Your task to perform on an android device: Empty the shopping cart on costco. Add usb-a to usb-b to the cart on costco, then select checkout. Image 0: 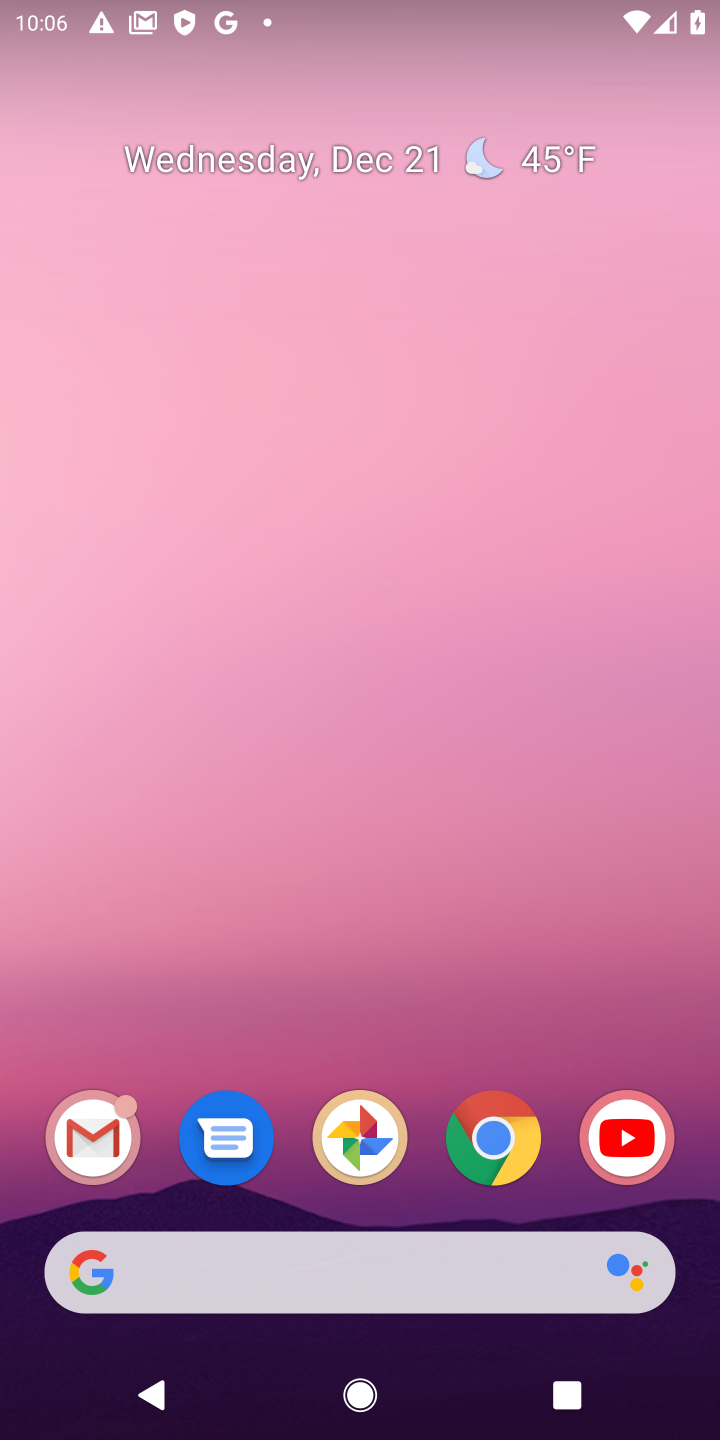
Step 0: click (489, 1150)
Your task to perform on an android device: Empty the shopping cart on costco. Add usb-a to usb-b to the cart on costco, then select checkout. Image 1: 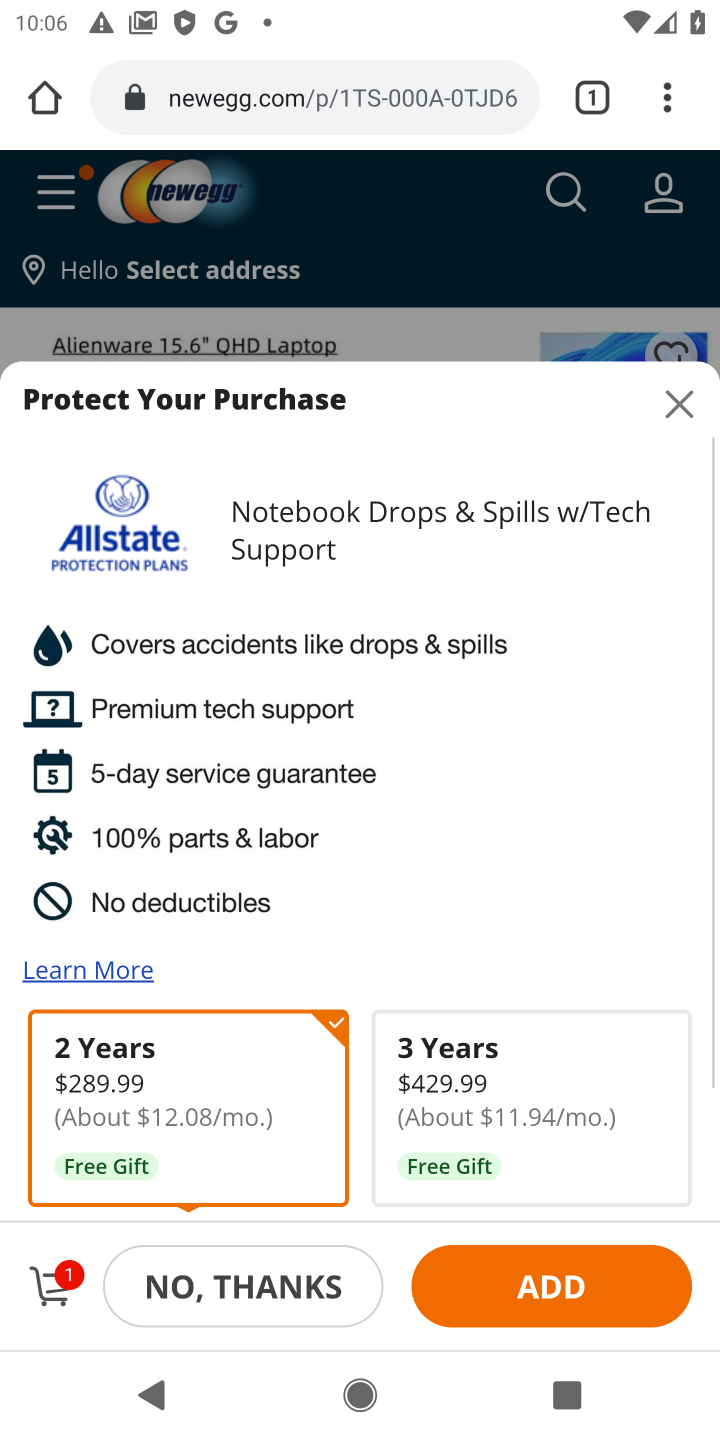
Step 1: click (310, 108)
Your task to perform on an android device: Empty the shopping cart on costco. Add usb-a to usb-b to the cart on costco, then select checkout. Image 2: 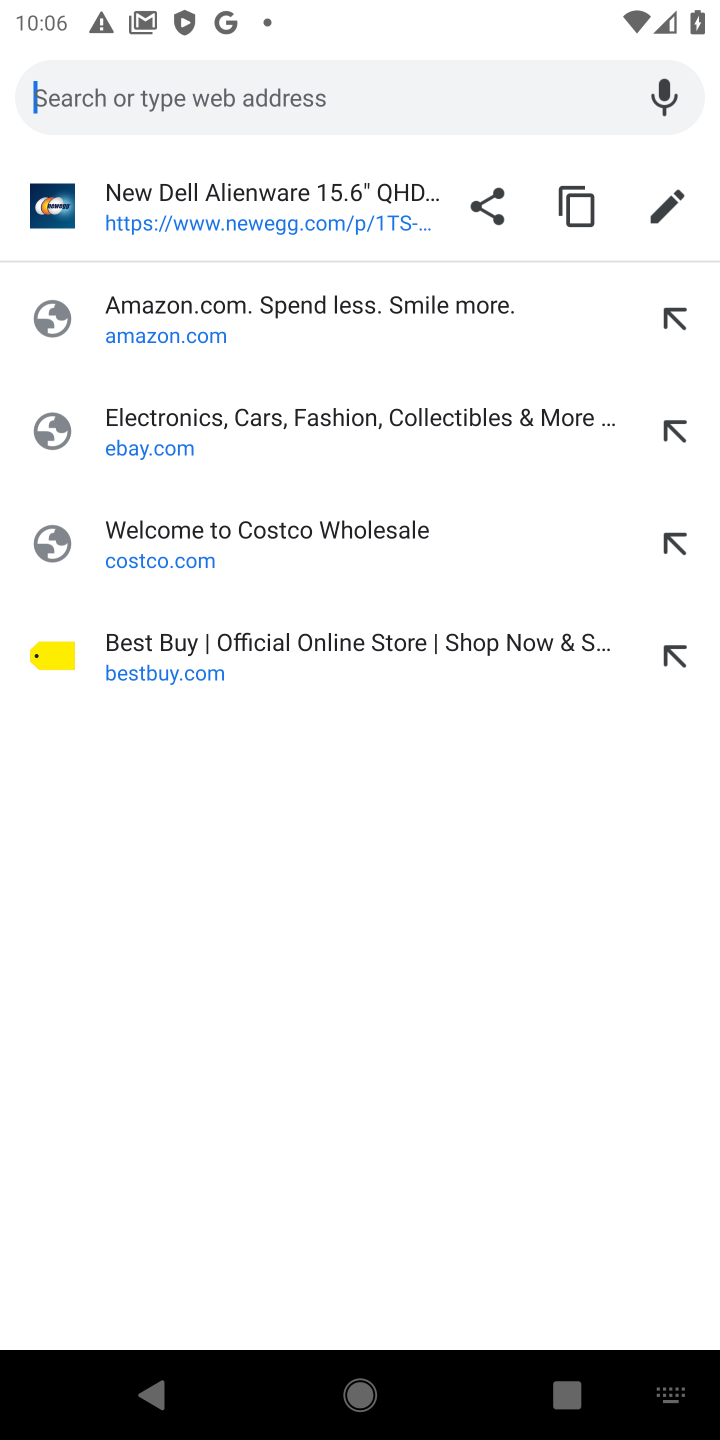
Step 2: click (140, 566)
Your task to perform on an android device: Empty the shopping cart on costco. Add usb-a to usb-b to the cart on costco, then select checkout. Image 3: 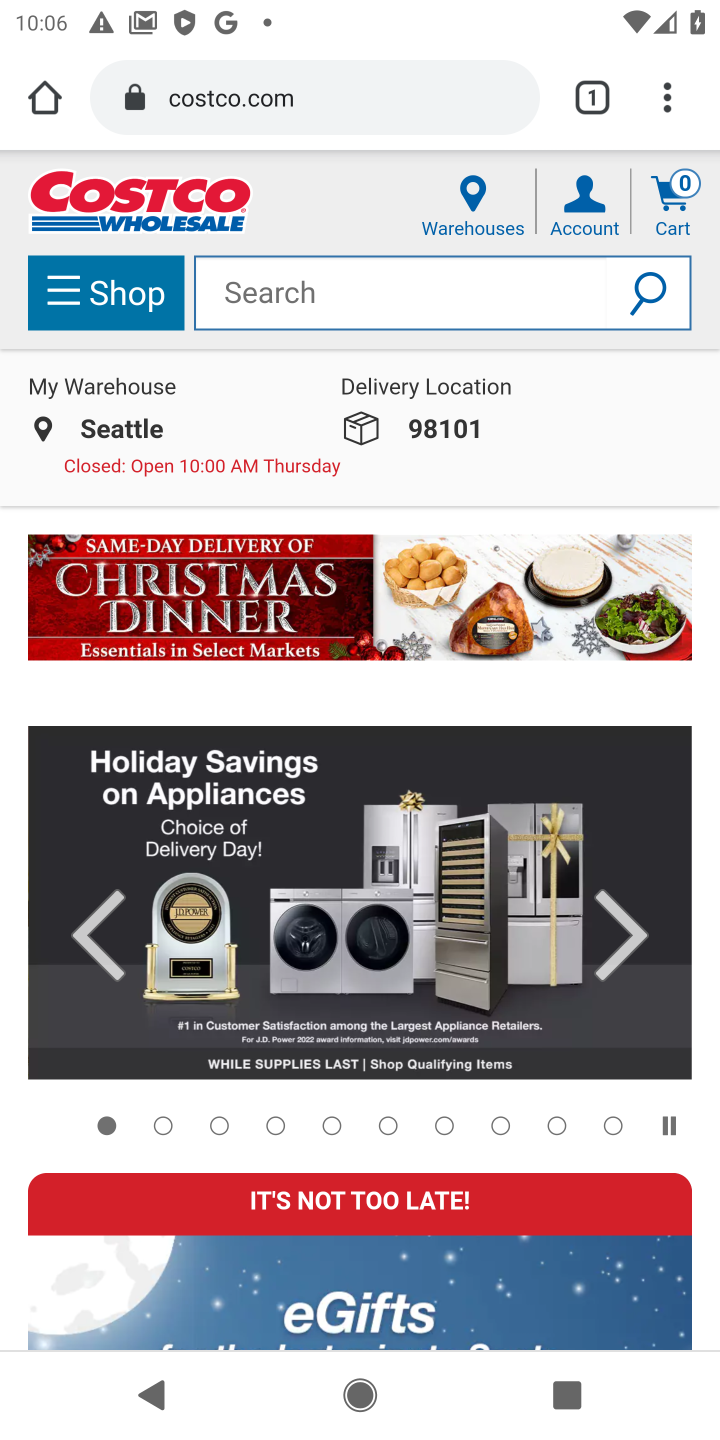
Step 3: click (665, 203)
Your task to perform on an android device: Empty the shopping cart on costco. Add usb-a to usb-b to the cart on costco, then select checkout. Image 4: 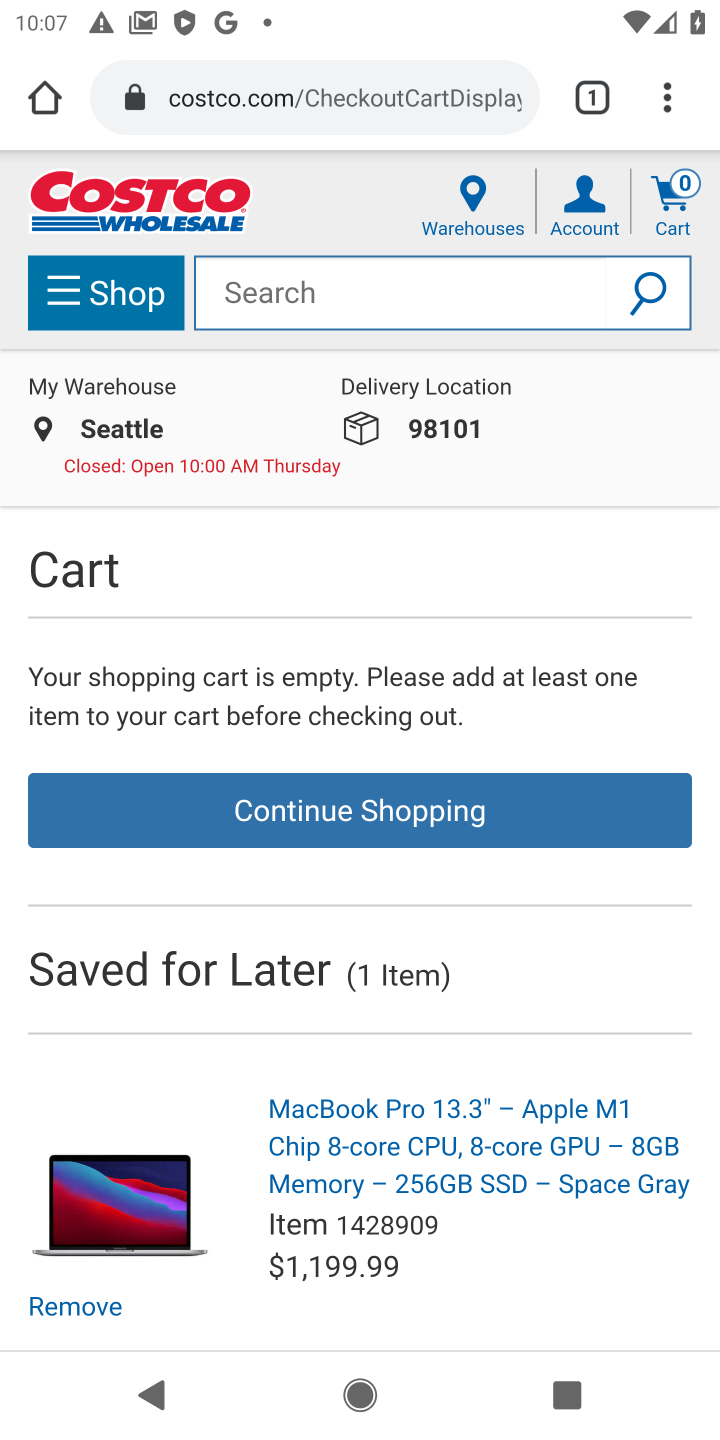
Step 4: click (257, 304)
Your task to perform on an android device: Empty the shopping cart on costco. Add usb-a to usb-b to the cart on costco, then select checkout. Image 5: 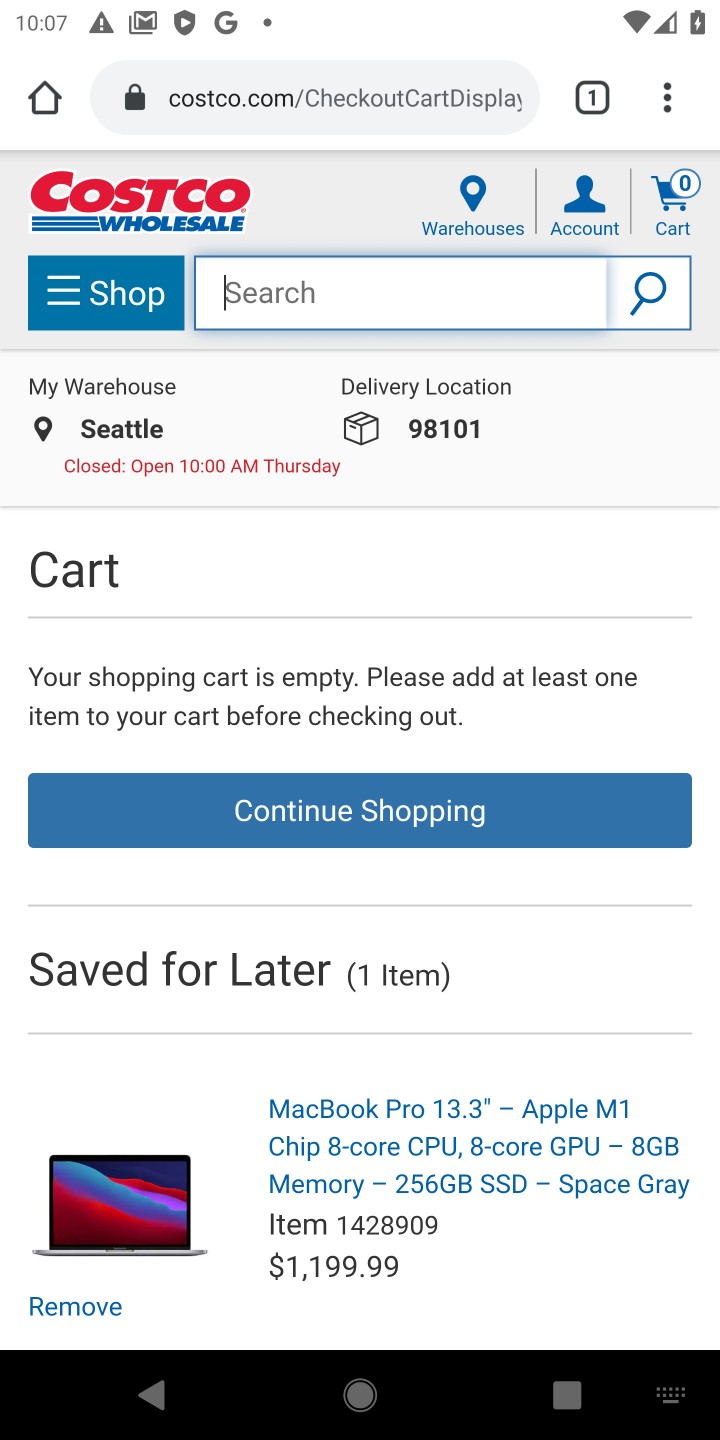
Step 5: type "usb-a to usb-b"
Your task to perform on an android device: Empty the shopping cart on costco. Add usb-a to usb-b to the cart on costco, then select checkout. Image 6: 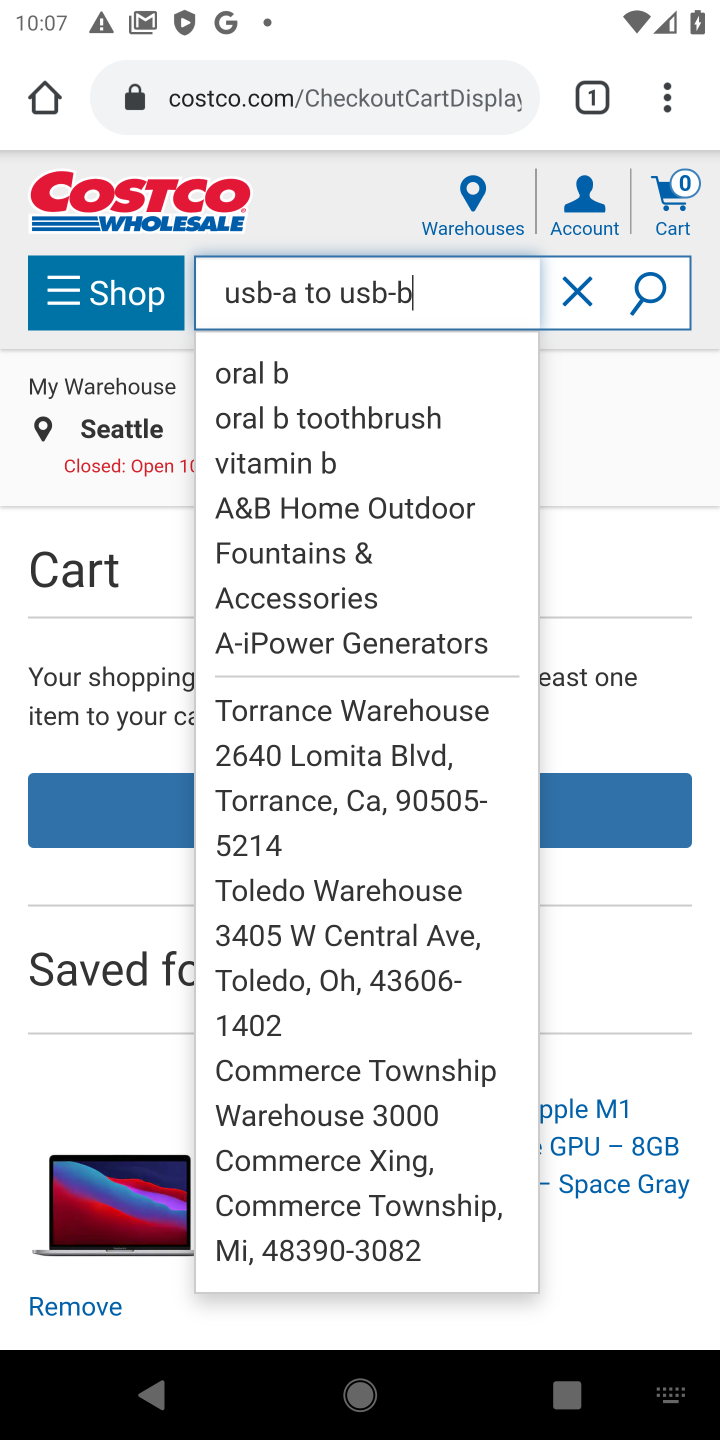
Step 6: click (638, 300)
Your task to perform on an android device: Empty the shopping cart on costco. Add usb-a to usb-b to the cart on costco, then select checkout. Image 7: 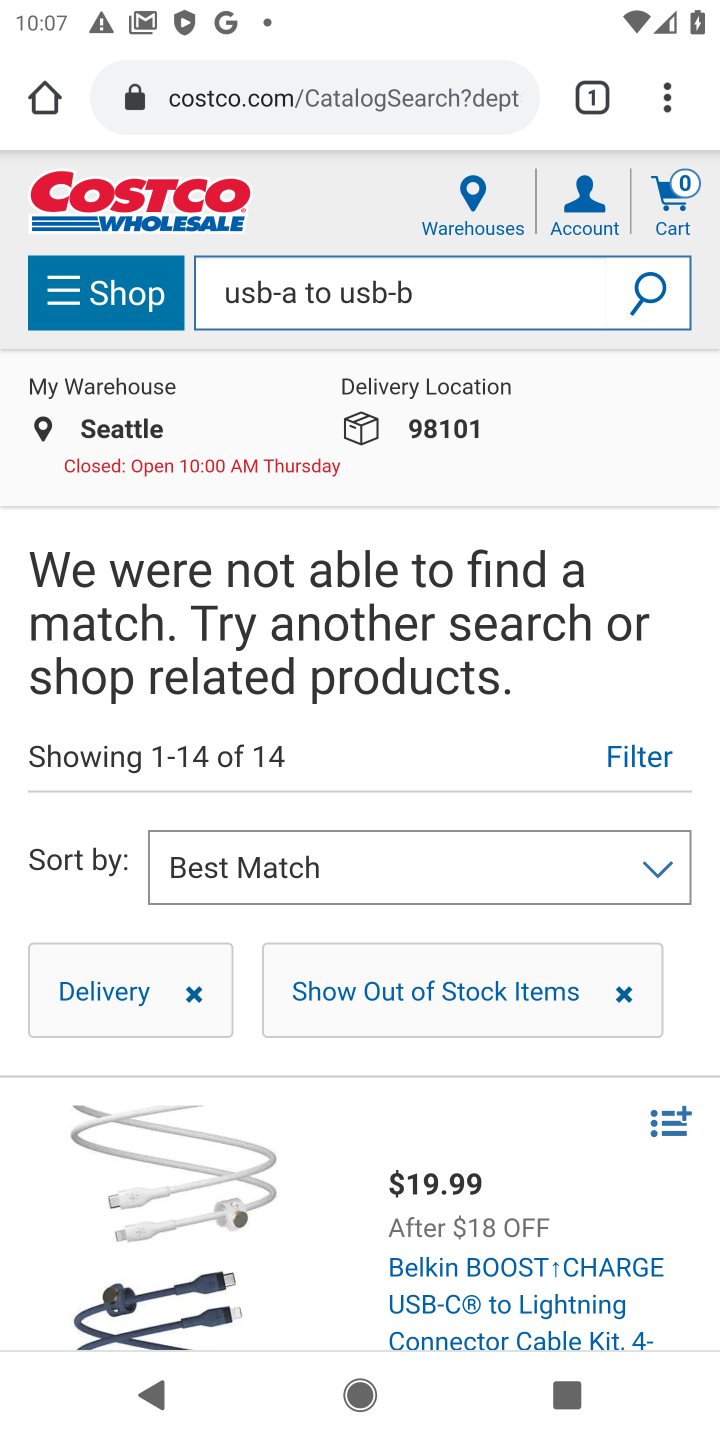
Step 7: task complete